Your task to perform on an android device: check the backup settings in the google photos Image 0: 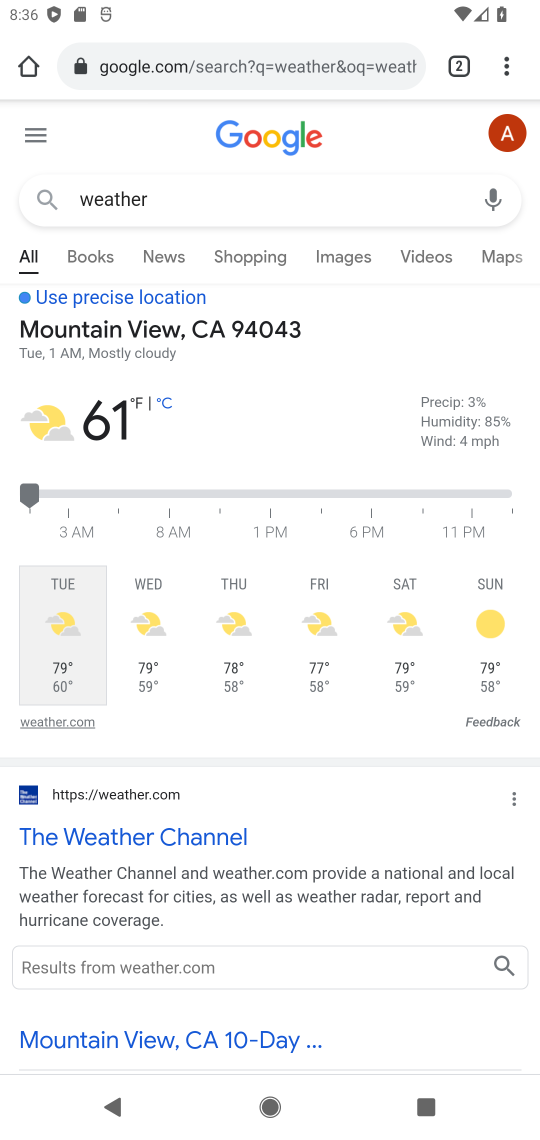
Step 0: press home button
Your task to perform on an android device: check the backup settings in the google photos Image 1: 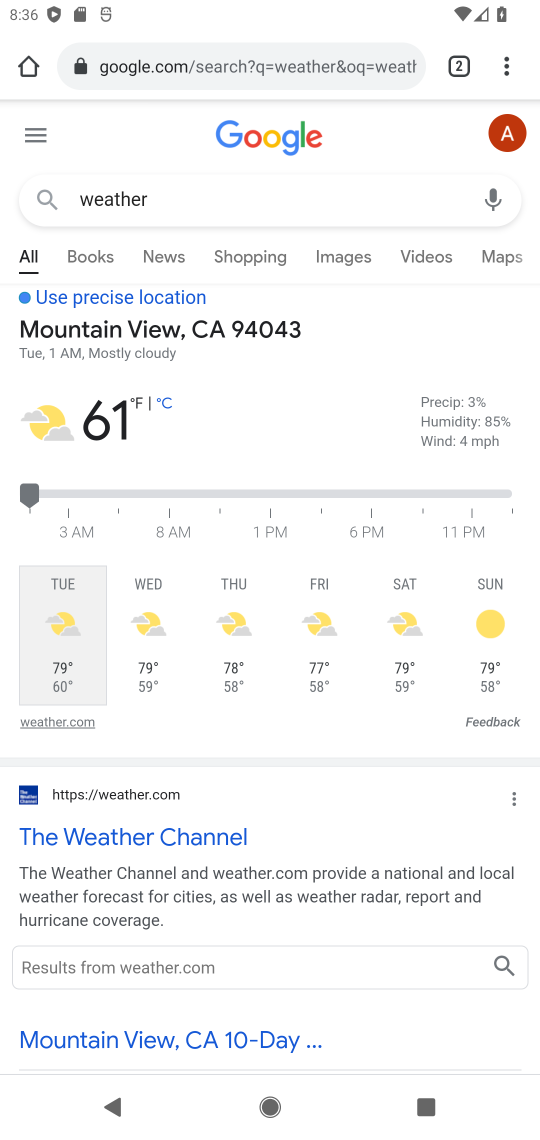
Step 1: press home button
Your task to perform on an android device: check the backup settings in the google photos Image 2: 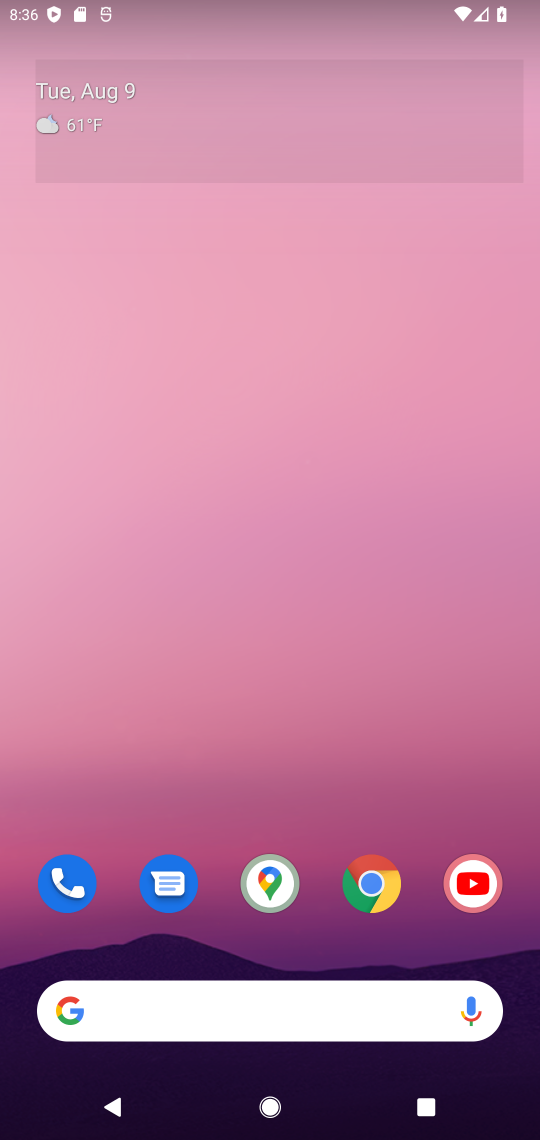
Step 2: drag from (357, 756) to (376, 12)
Your task to perform on an android device: check the backup settings in the google photos Image 3: 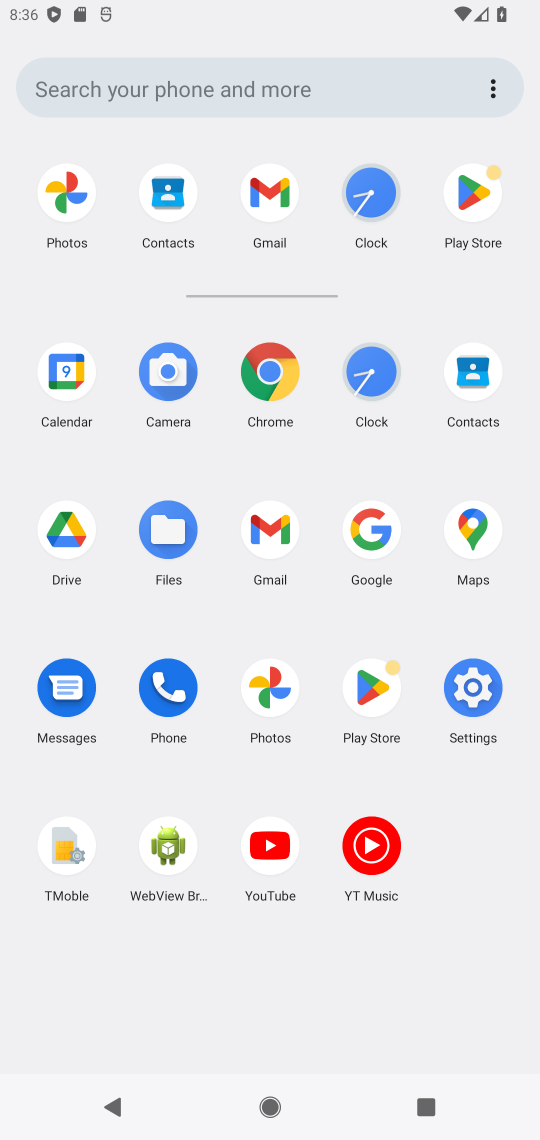
Step 3: click (384, 696)
Your task to perform on an android device: check the backup settings in the google photos Image 4: 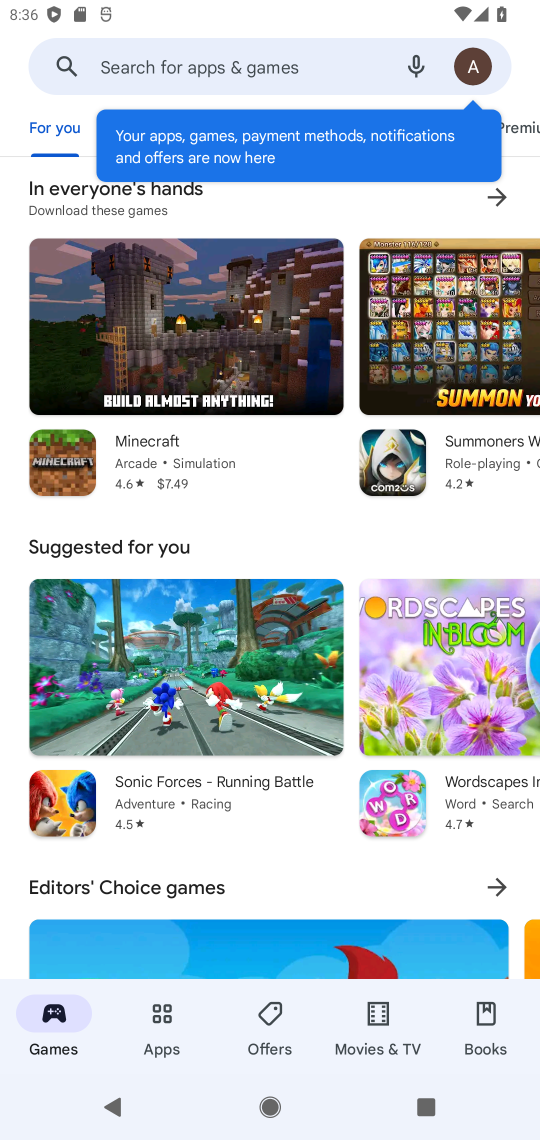
Step 4: press home button
Your task to perform on an android device: check the backup settings in the google photos Image 5: 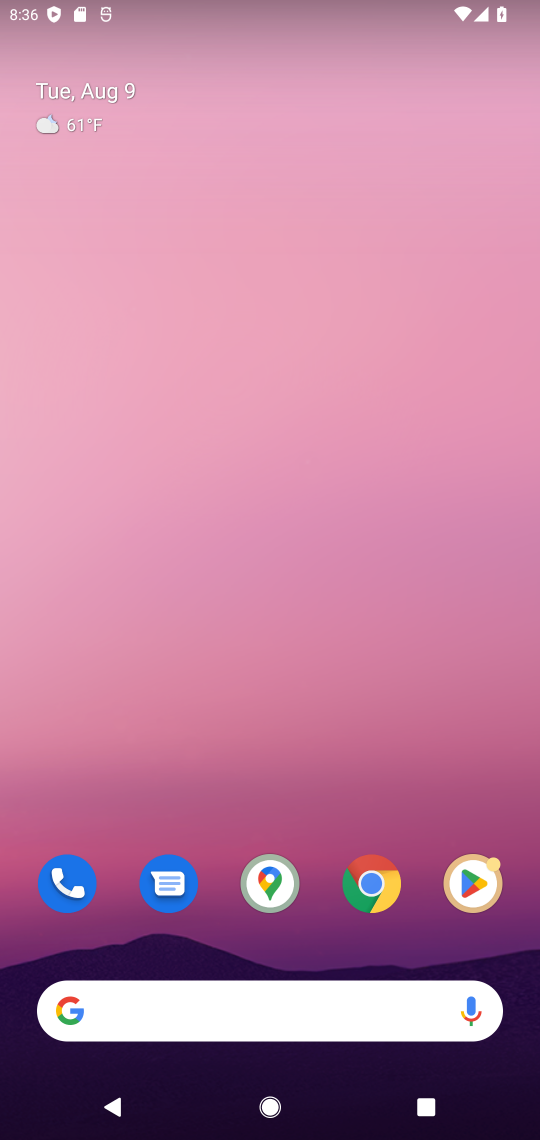
Step 5: drag from (289, 782) to (293, 65)
Your task to perform on an android device: check the backup settings in the google photos Image 6: 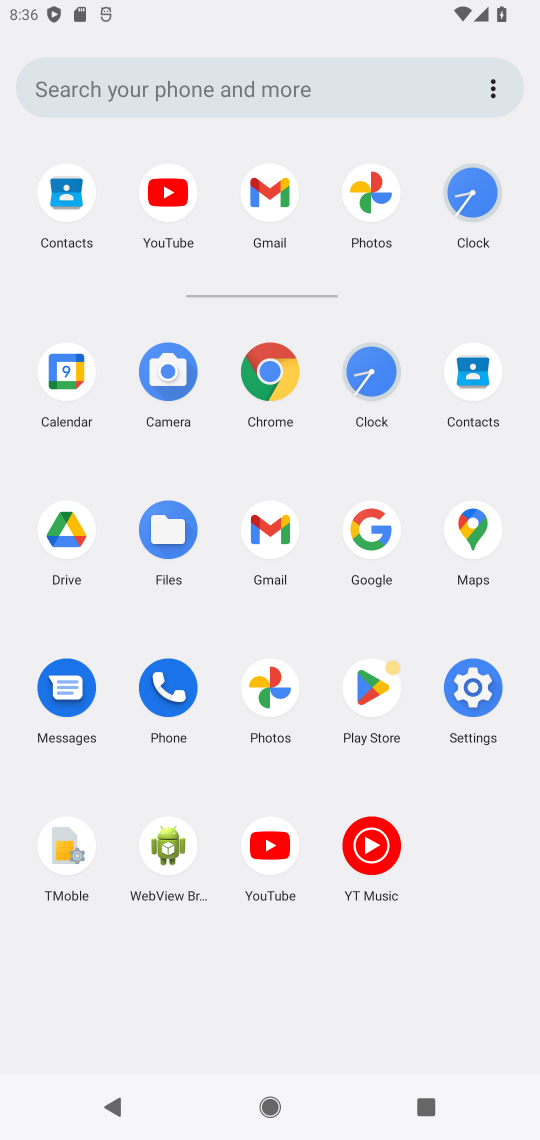
Step 6: click (280, 684)
Your task to perform on an android device: check the backup settings in the google photos Image 7: 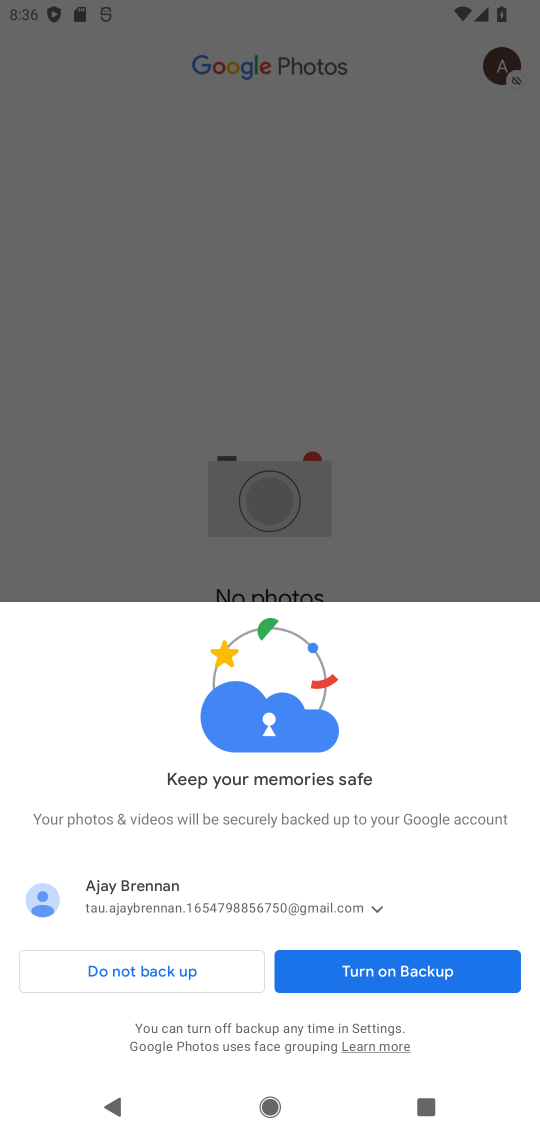
Step 7: click (330, 968)
Your task to perform on an android device: check the backup settings in the google photos Image 8: 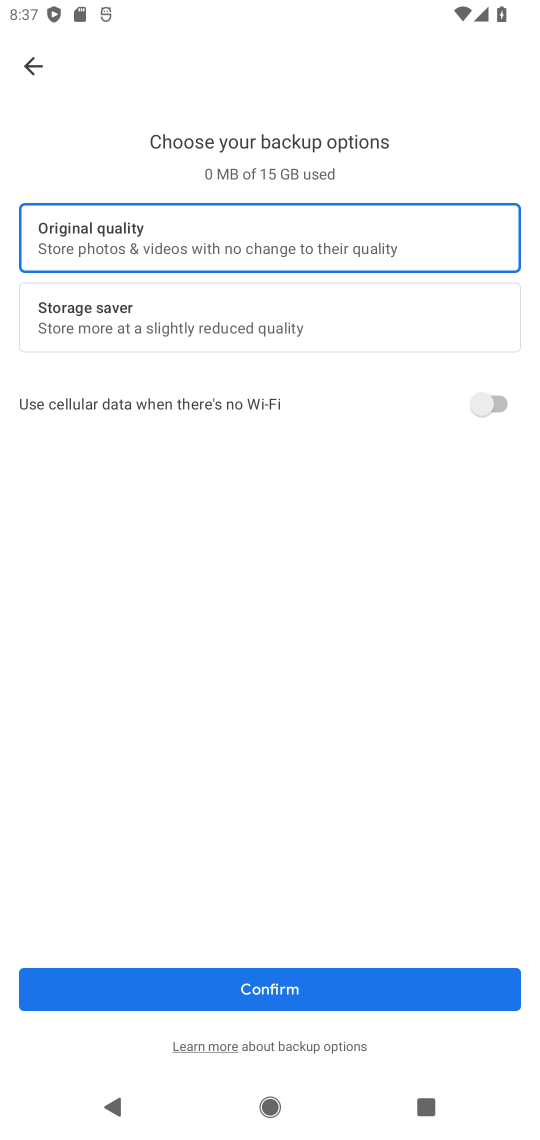
Step 8: click (402, 999)
Your task to perform on an android device: check the backup settings in the google photos Image 9: 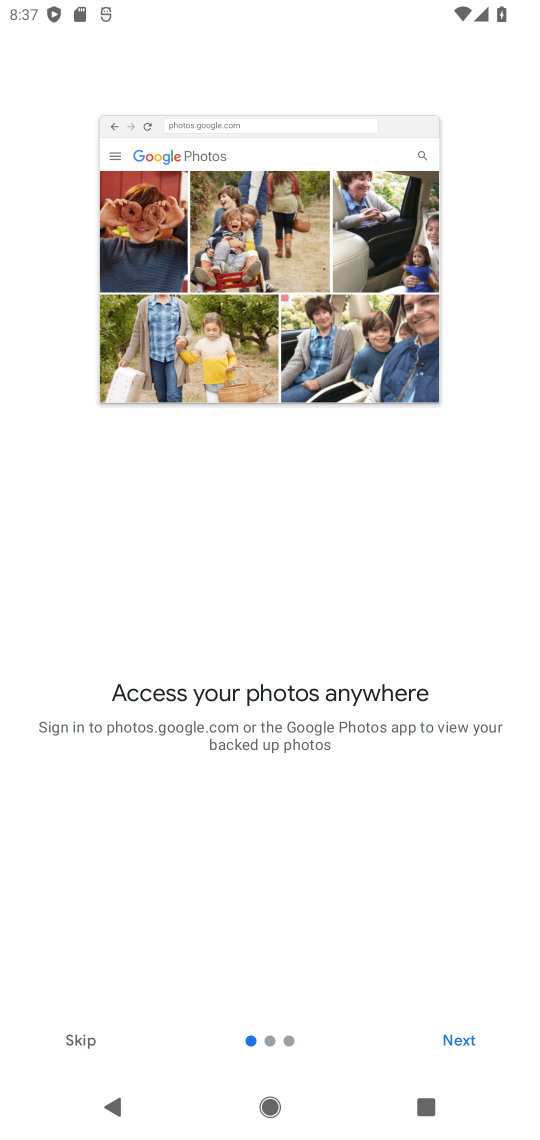
Step 9: click (445, 1036)
Your task to perform on an android device: check the backup settings in the google photos Image 10: 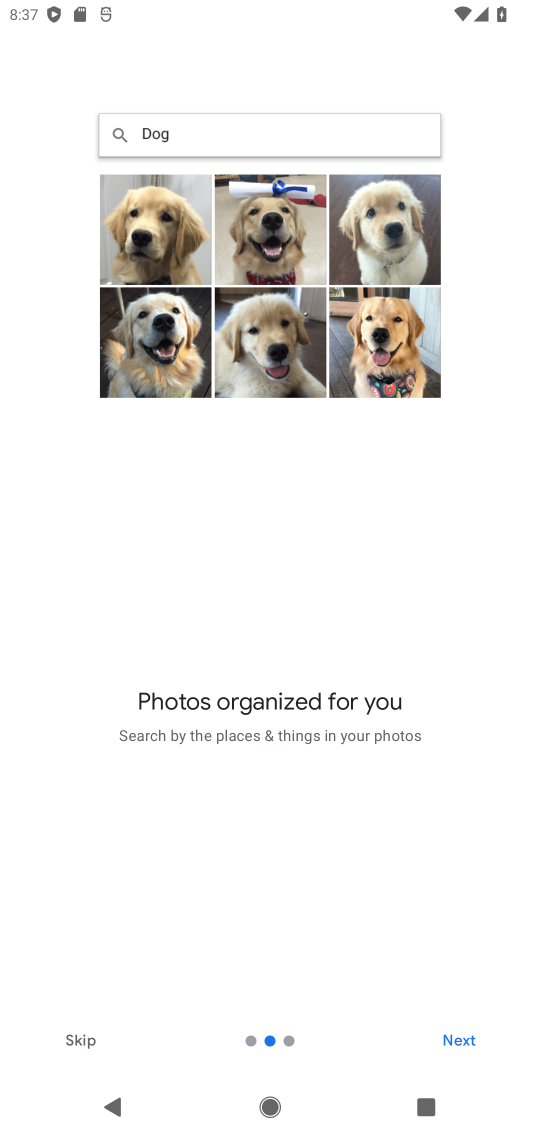
Step 10: click (444, 1042)
Your task to perform on an android device: check the backup settings in the google photos Image 11: 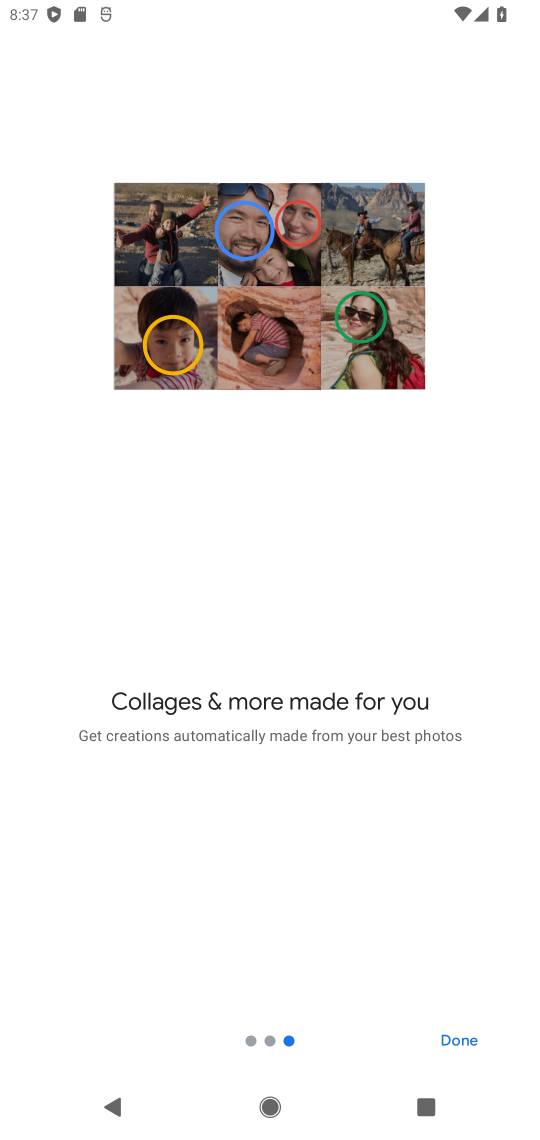
Step 11: click (450, 1036)
Your task to perform on an android device: check the backup settings in the google photos Image 12: 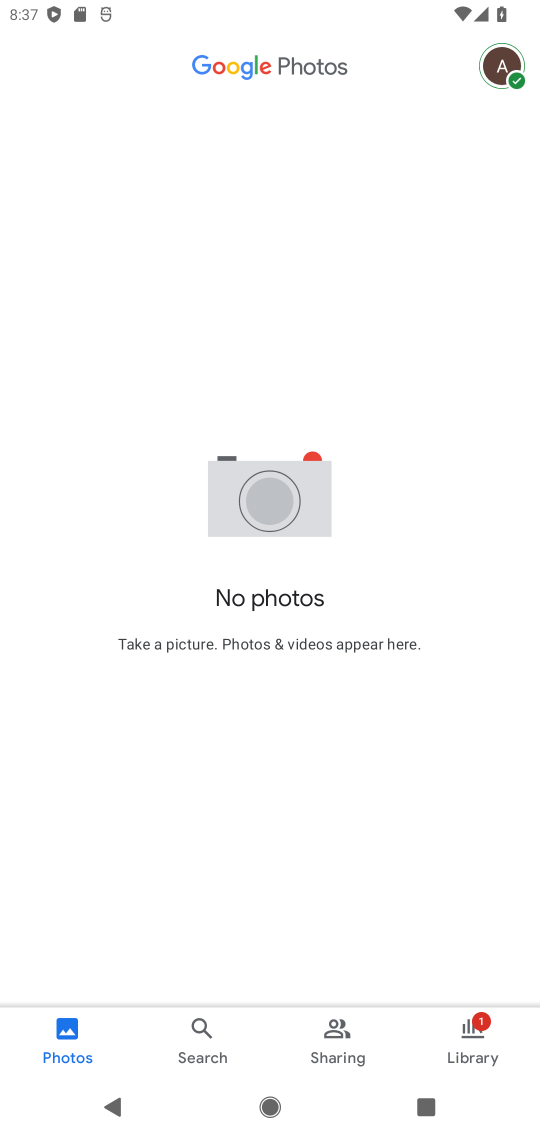
Step 12: click (450, 1033)
Your task to perform on an android device: check the backup settings in the google photos Image 13: 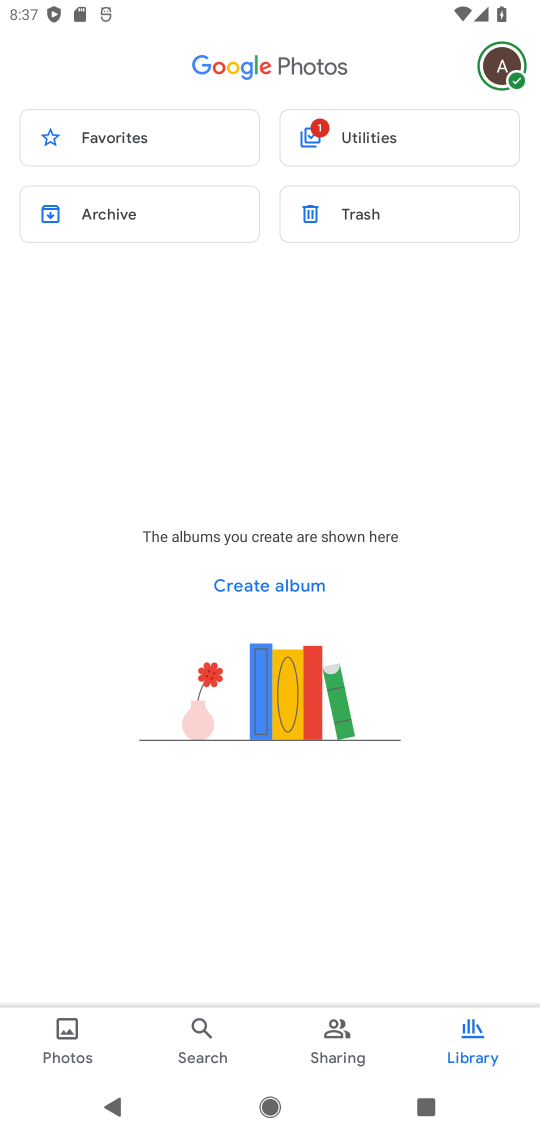
Step 13: click (509, 66)
Your task to perform on an android device: check the backup settings in the google photos Image 14: 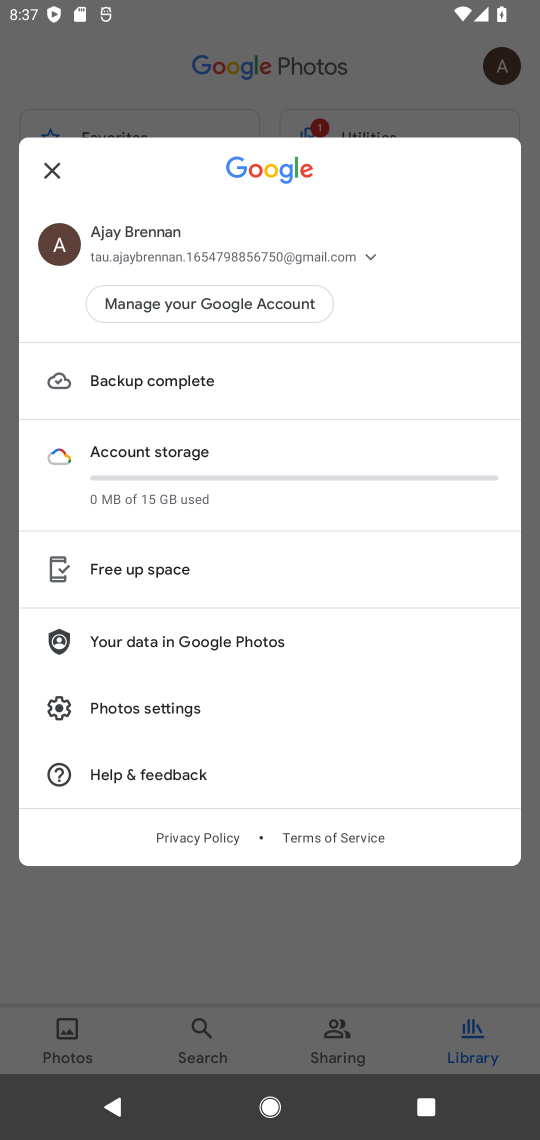
Step 14: click (111, 708)
Your task to perform on an android device: check the backup settings in the google photos Image 15: 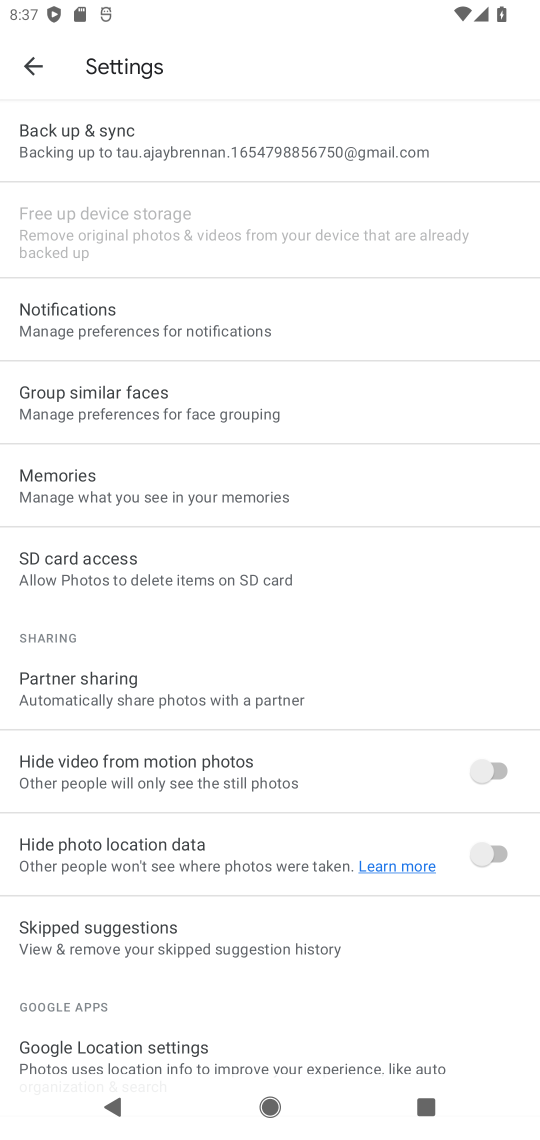
Step 15: click (210, 142)
Your task to perform on an android device: check the backup settings in the google photos Image 16: 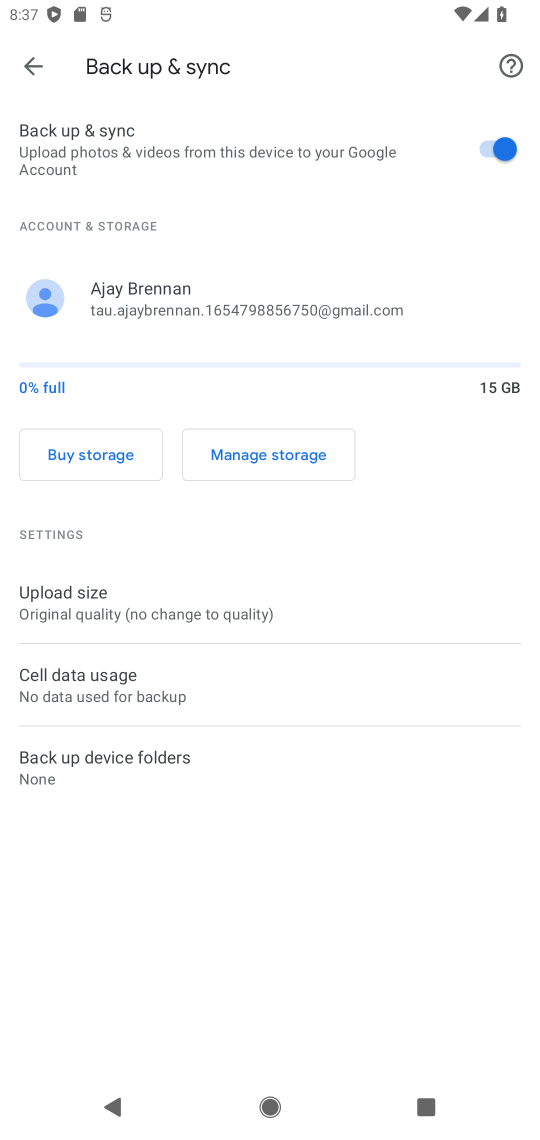
Step 16: task complete